Your task to perform on an android device: check out phone information Image 0: 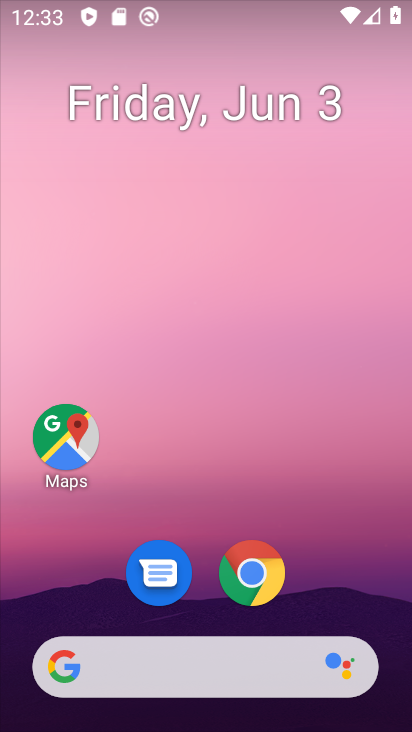
Step 0: task complete